Your task to perform on an android device: open app "Booking.com: Hotels and more" Image 0: 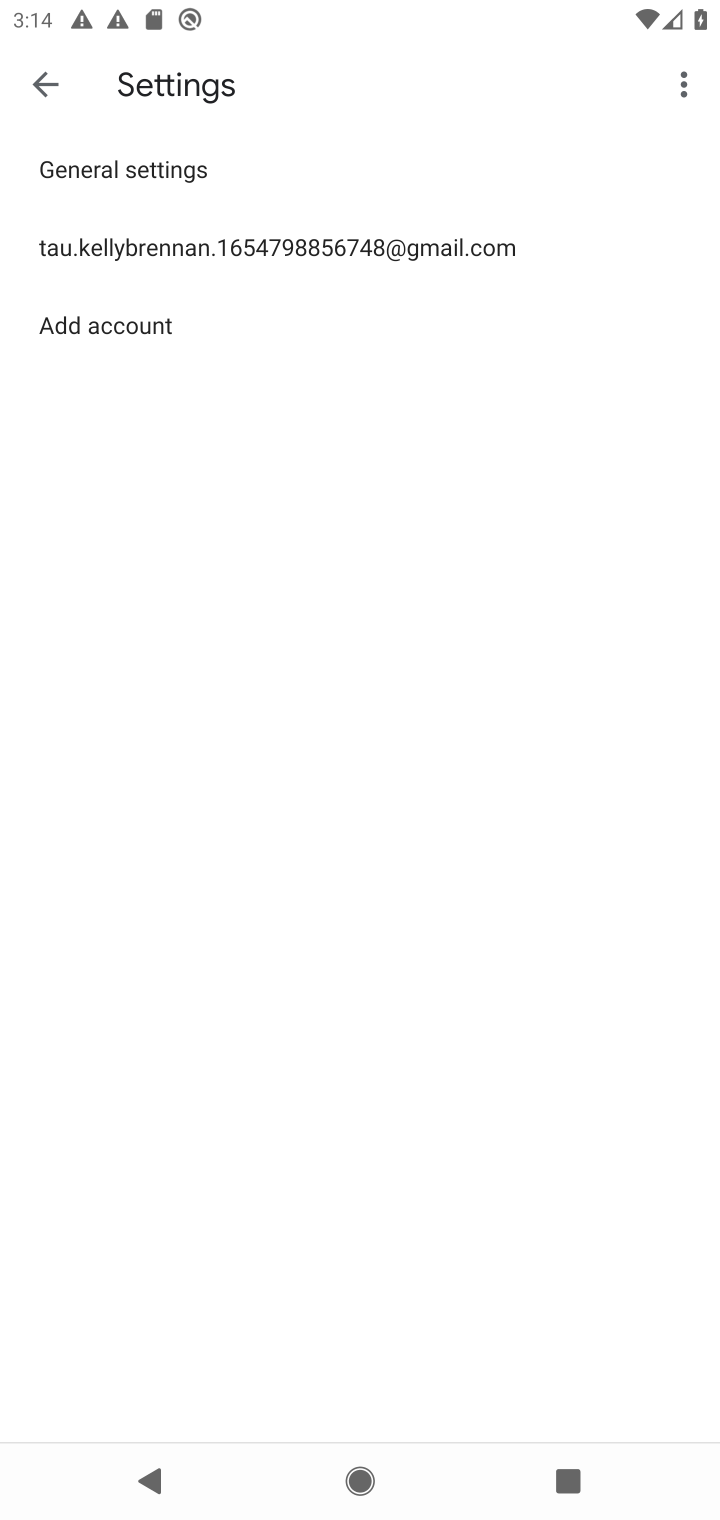
Step 0: press home button
Your task to perform on an android device: open app "Booking.com: Hotels and more" Image 1: 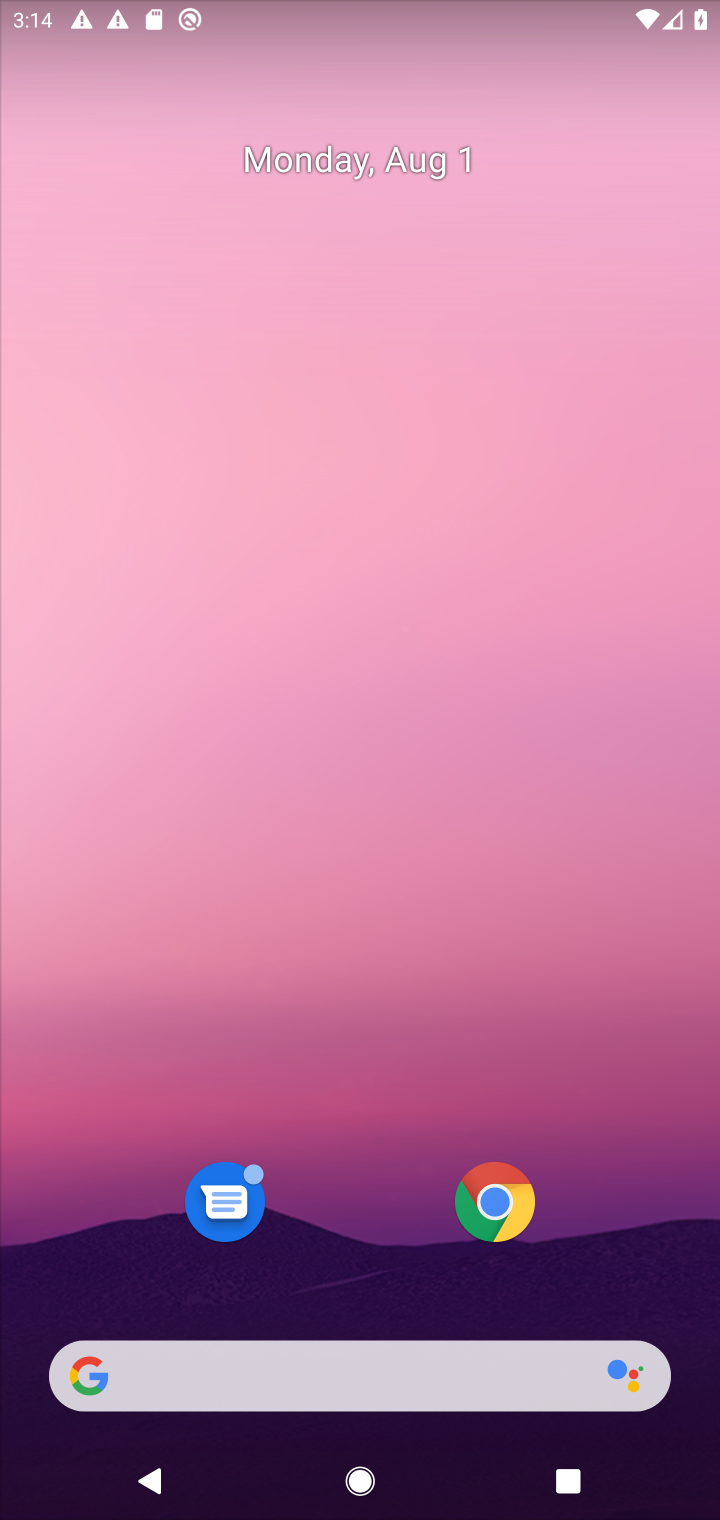
Step 1: drag from (386, 1217) to (421, 135)
Your task to perform on an android device: open app "Booking.com: Hotels and more" Image 2: 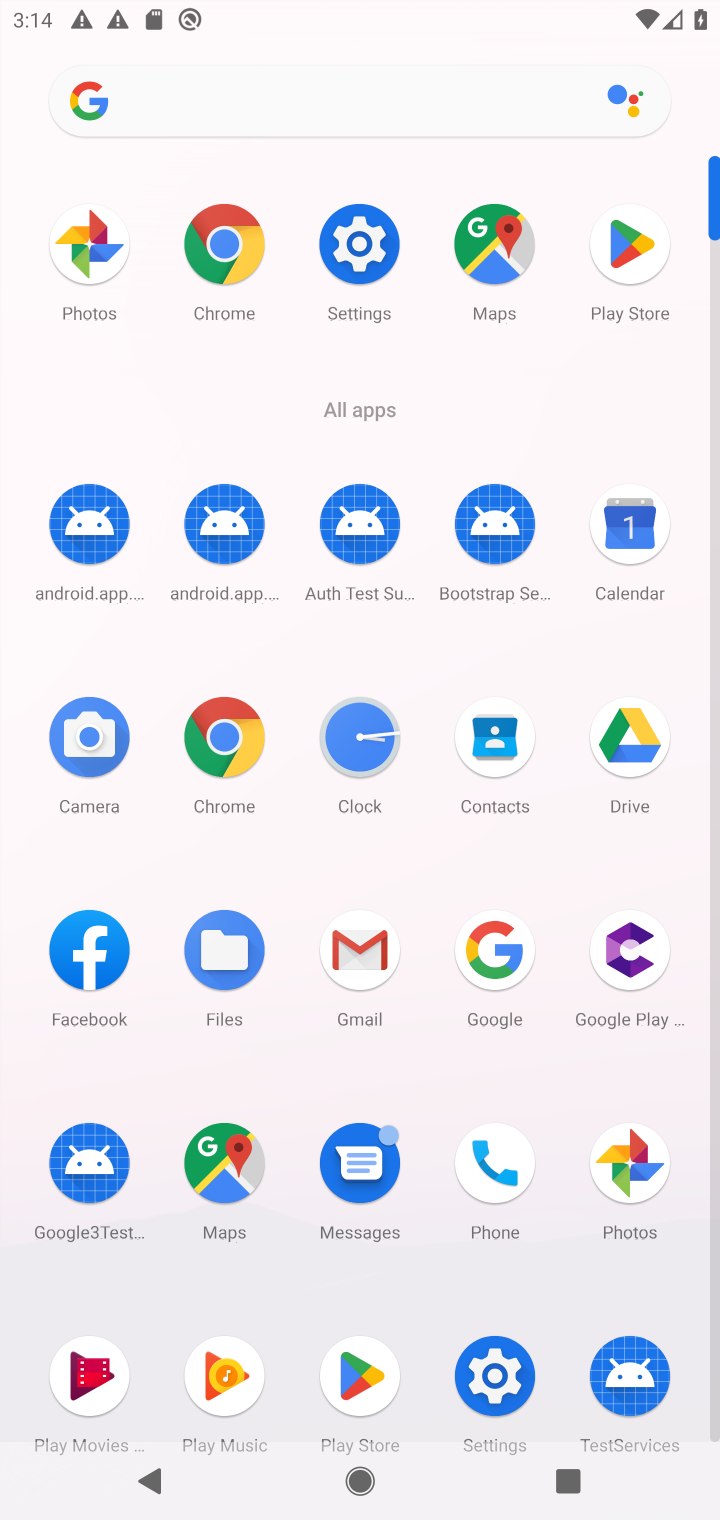
Step 2: click (348, 1351)
Your task to perform on an android device: open app "Booking.com: Hotels and more" Image 3: 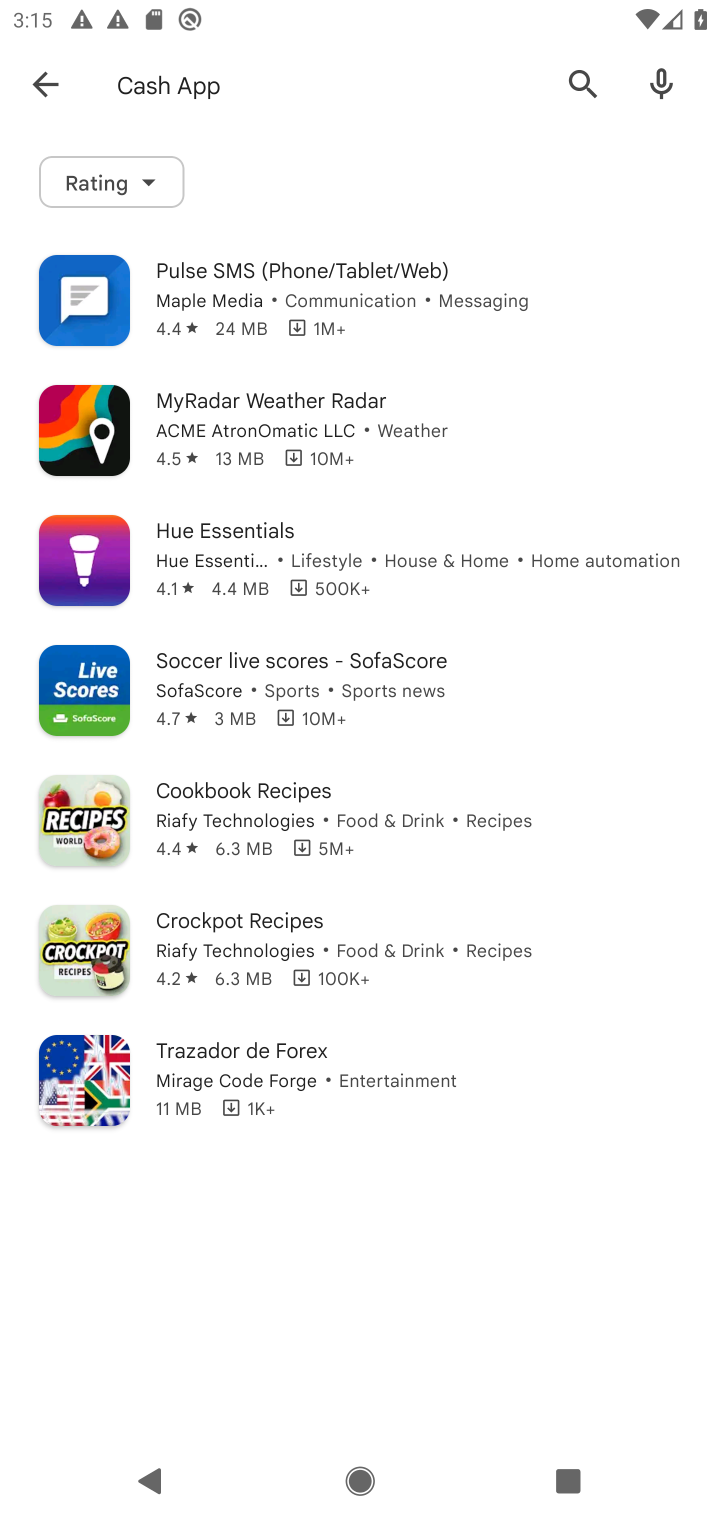
Step 3: click (359, 76)
Your task to perform on an android device: open app "Booking.com: Hotels and more" Image 4: 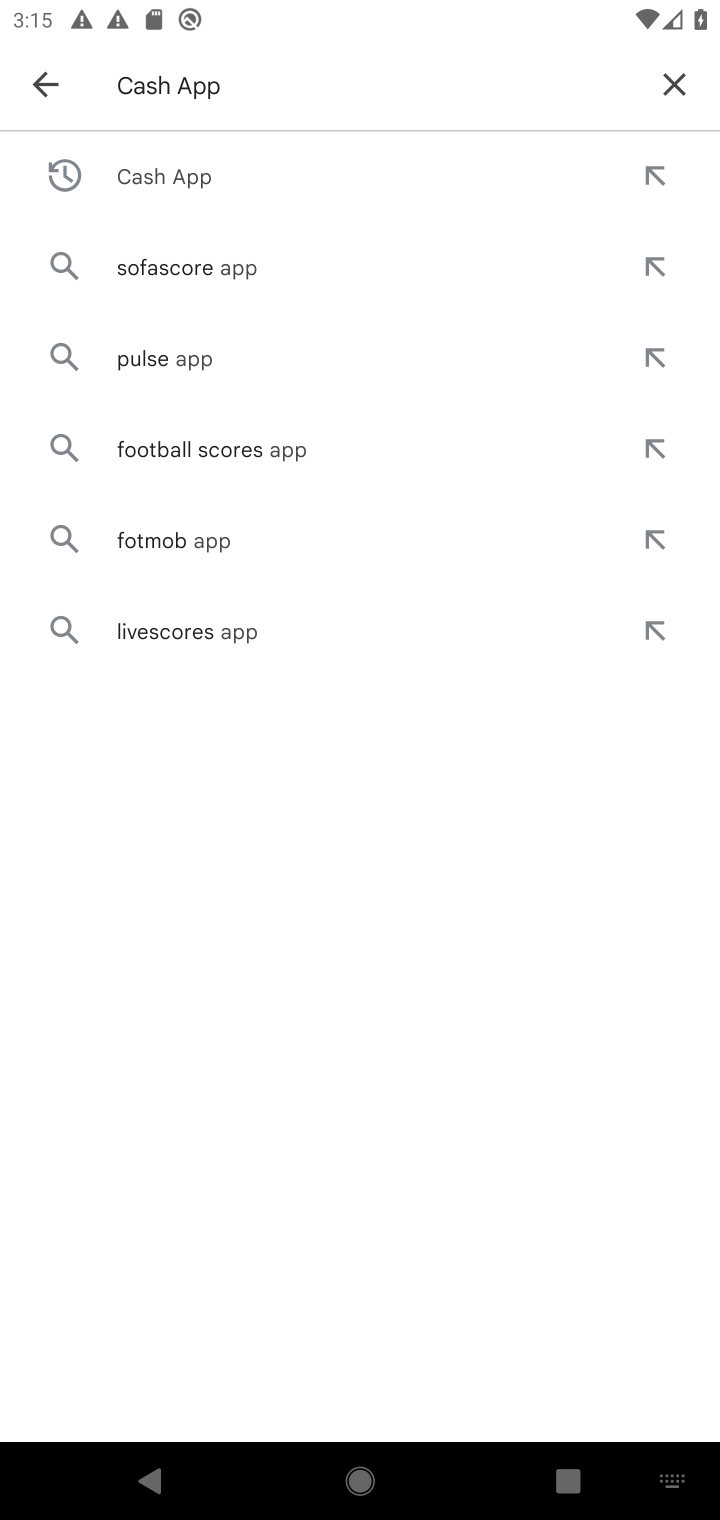
Step 4: click (684, 78)
Your task to perform on an android device: open app "Booking.com: Hotels and more" Image 5: 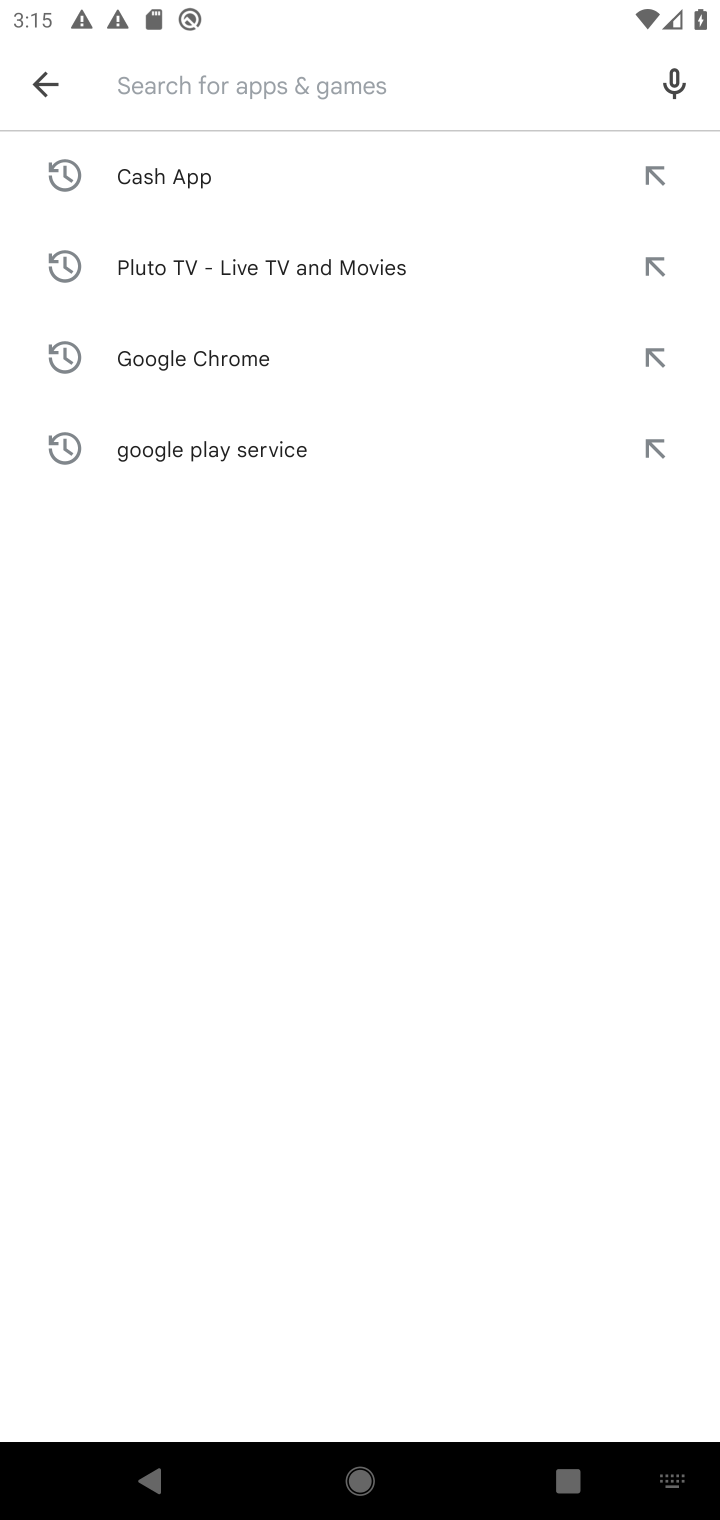
Step 5: type "Booking.com: Hotels and more"
Your task to perform on an android device: open app "Booking.com: Hotels and more" Image 6: 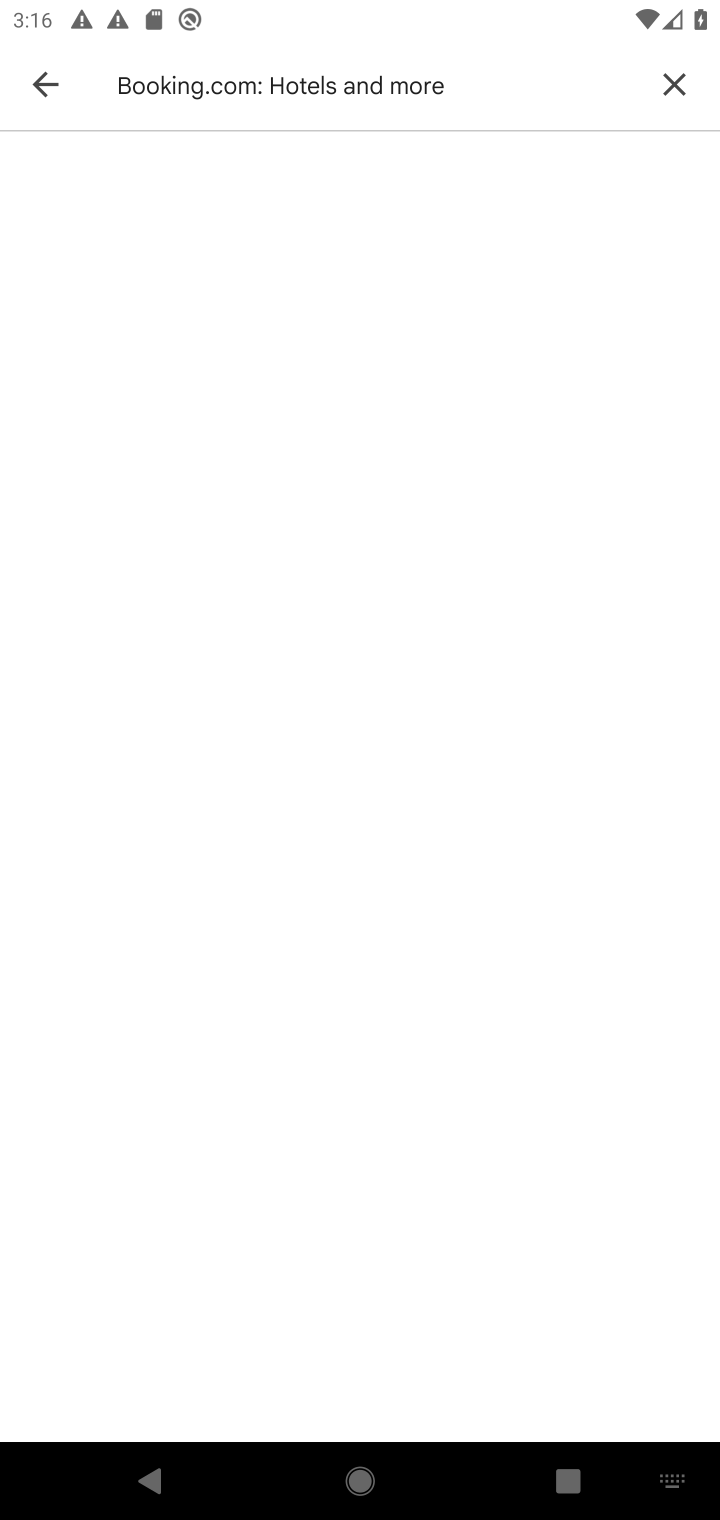
Step 6: press enter
Your task to perform on an android device: open app "Booking.com: Hotels and more" Image 7: 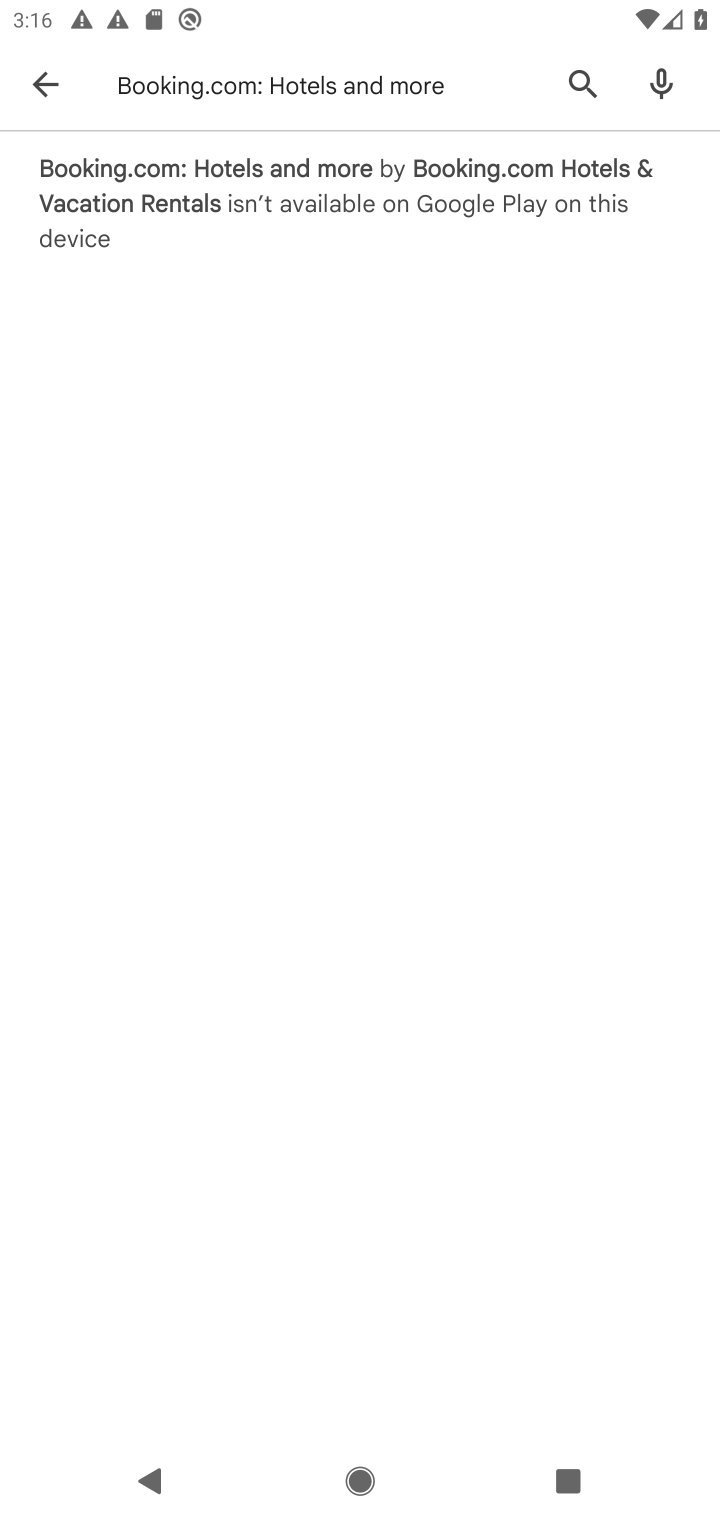
Step 7: press enter
Your task to perform on an android device: open app "Booking.com: Hotels and more" Image 8: 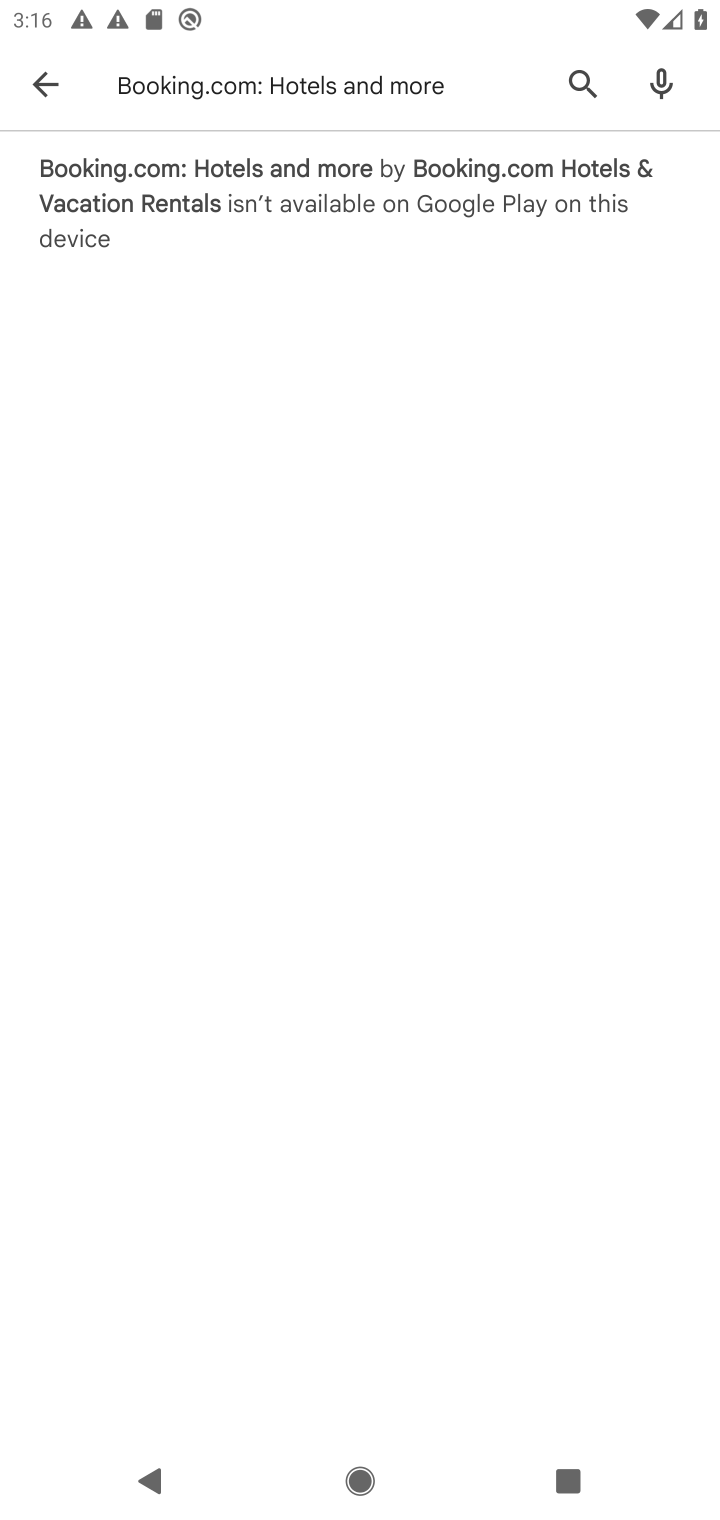
Step 8: click (447, 162)
Your task to perform on an android device: open app "Booking.com: Hotels and more" Image 9: 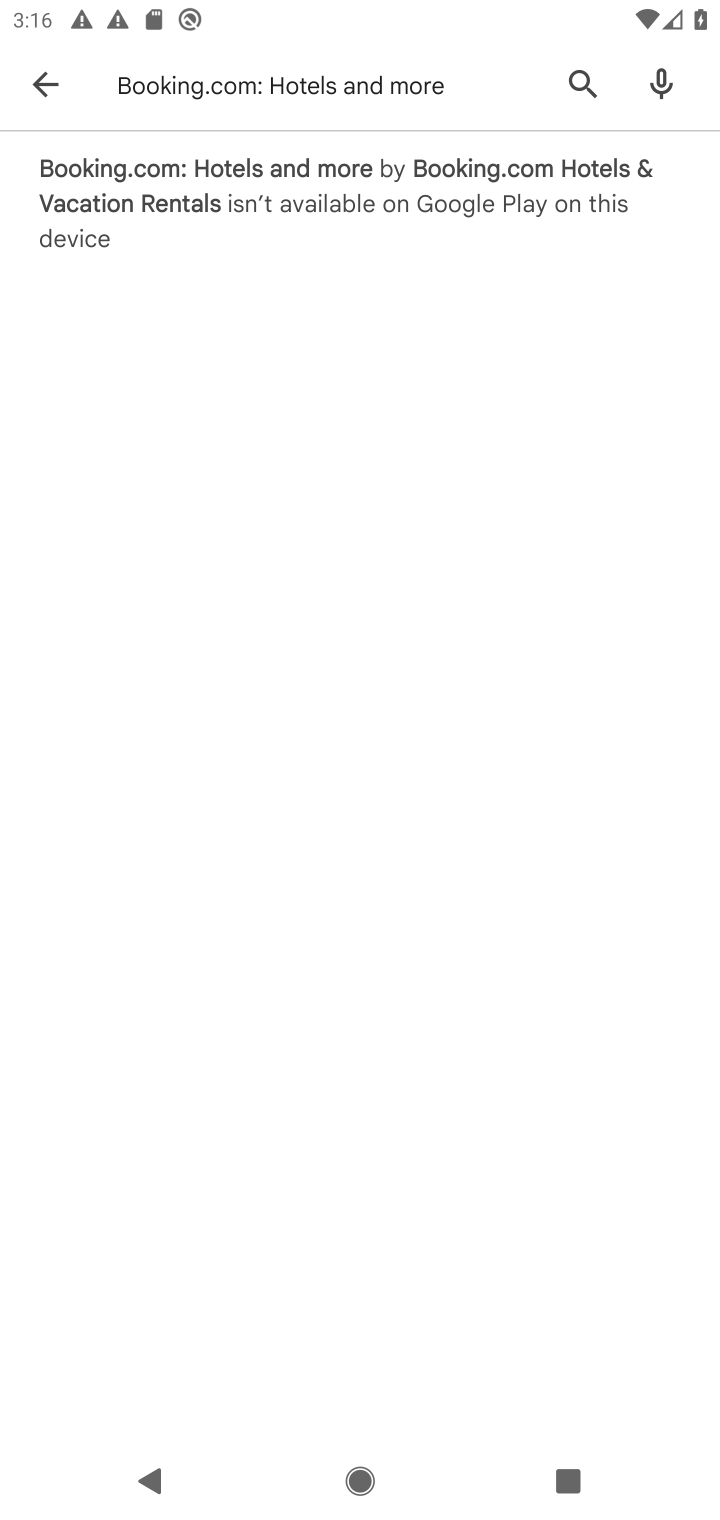
Step 9: click (396, 168)
Your task to perform on an android device: open app "Booking.com: Hotels and more" Image 10: 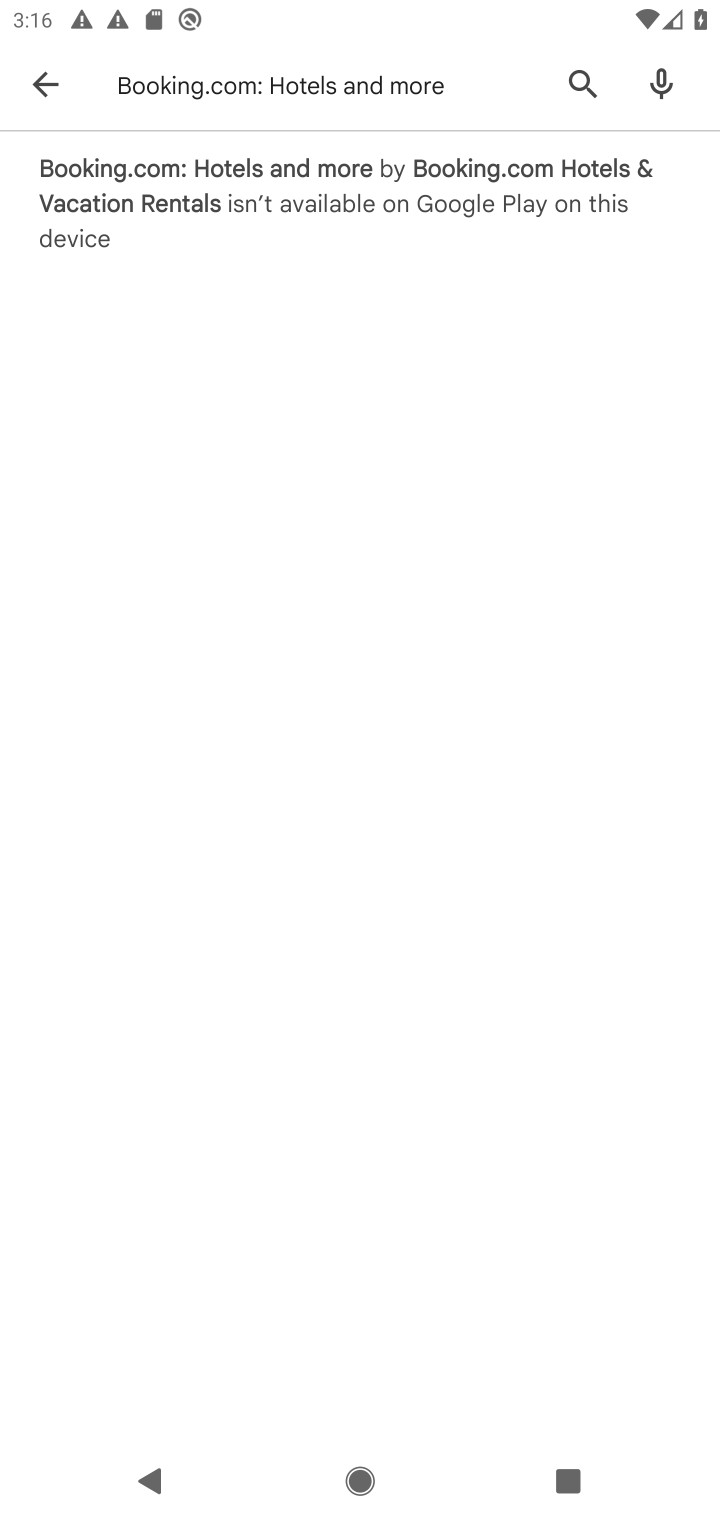
Step 10: click (181, 184)
Your task to perform on an android device: open app "Booking.com: Hotels and more" Image 11: 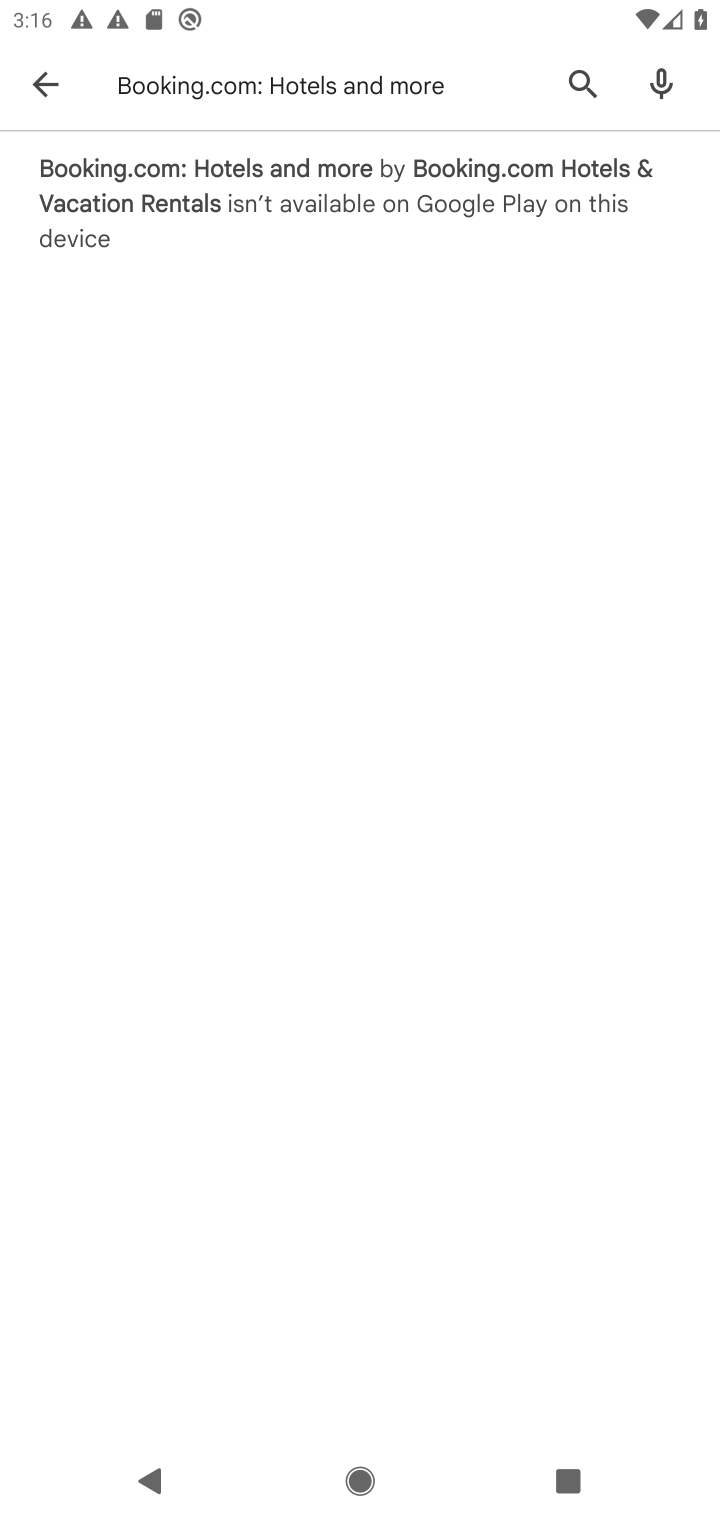
Step 11: click (153, 160)
Your task to perform on an android device: open app "Booking.com: Hotels and more" Image 12: 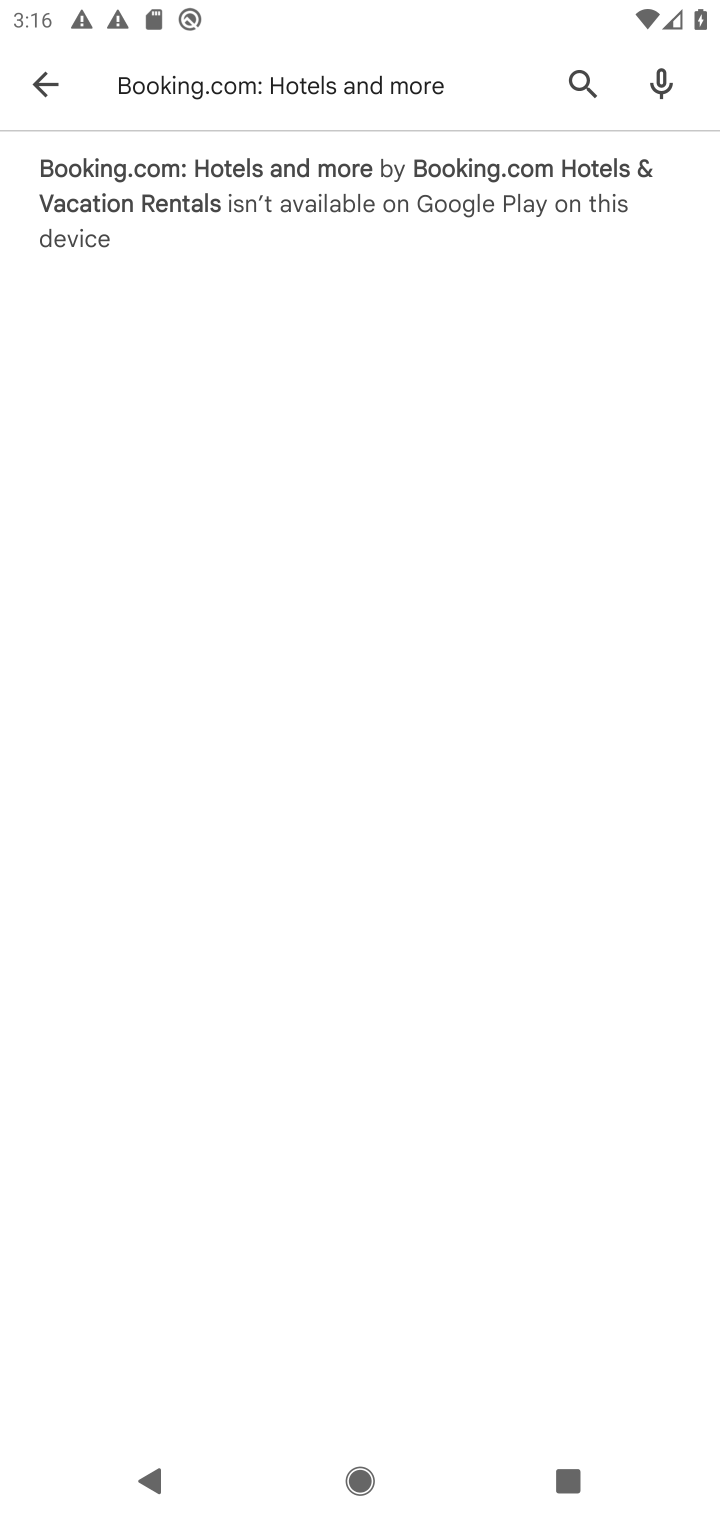
Step 12: task complete